Your task to perform on an android device: open the mobile data screen to see how much data has been used Image 0: 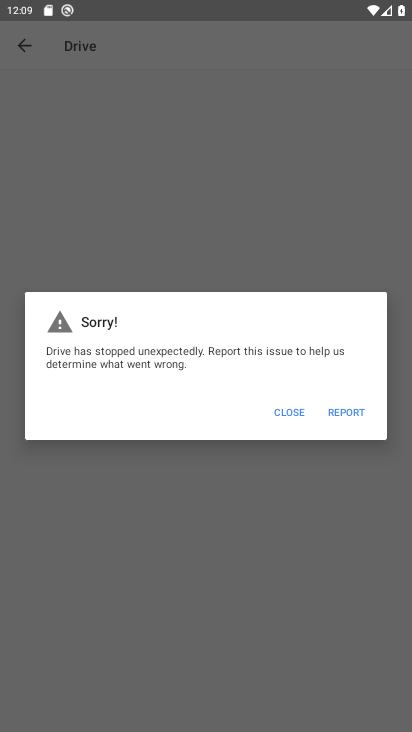
Step 0: press home button
Your task to perform on an android device: open the mobile data screen to see how much data has been used Image 1: 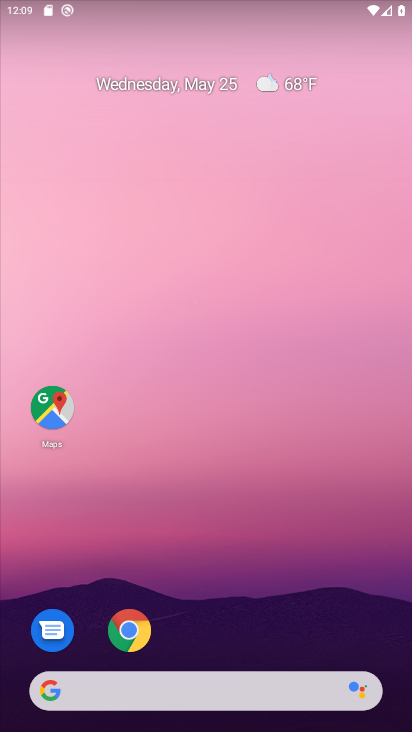
Step 1: drag from (202, 637) to (208, 164)
Your task to perform on an android device: open the mobile data screen to see how much data has been used Image 2: 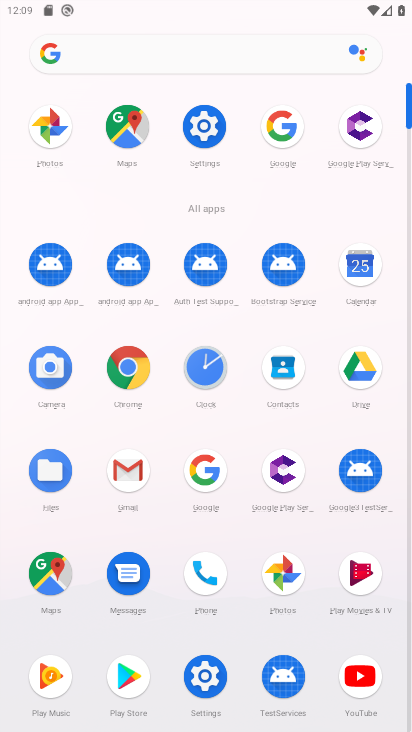
Step 2: click (194, 129)
Your task to perform on an android device: open the mobile data screen to see how much data has been used Image 3: 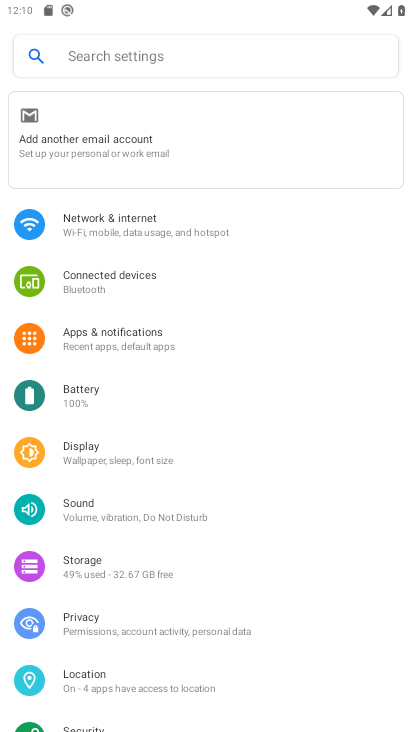
Step 3: click (189, 161)
Your task to perform on an android device: open the mobile data screen to see how much data has been used Image 4: 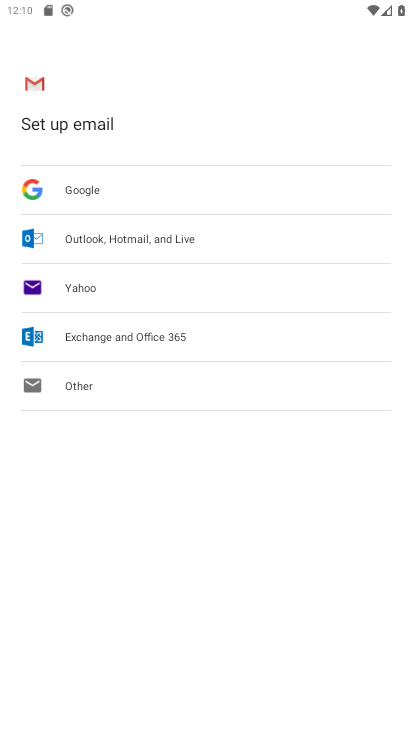
Step 4: press home button
Your task to perform on an android device: open the mobile data screen to see how much data has been used Image 5: 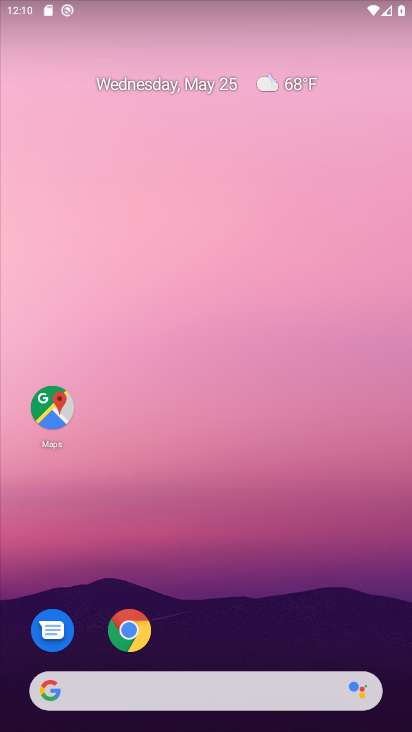
Step 5: drag from (220, 540) to (237, 160)
Your task to perform on an android device: open the mobile data screen to see how much data has been used Image 6: 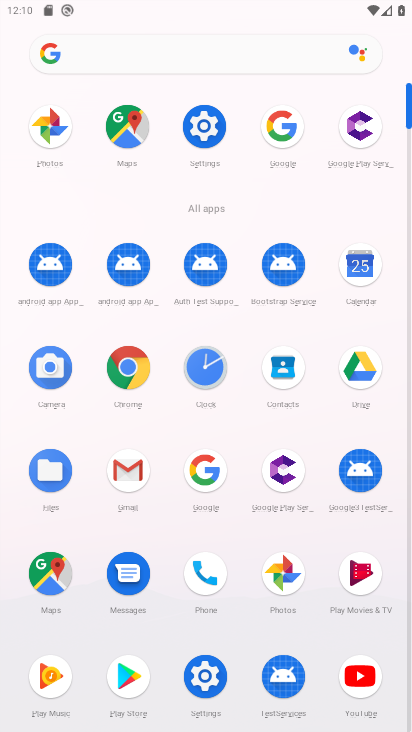
Step 6: click (226, 131)
Your task to perform on an android device: open the mobile data screen to see how much data has been used Image 7: 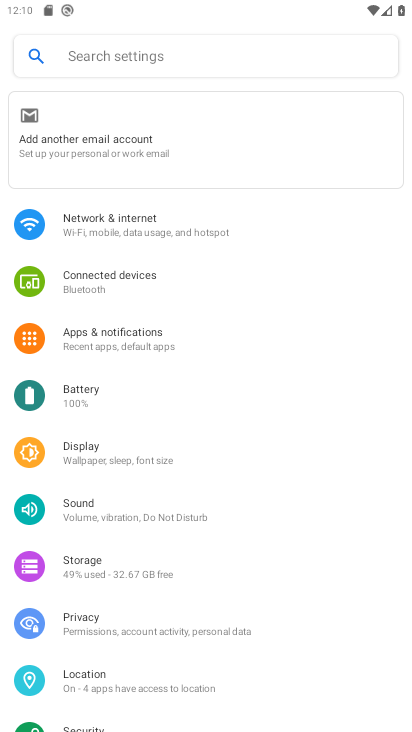
Step 7: click (128, 229)
Your task to perform on an android device: open the mobile data screen to see how much data has been used Image 8: 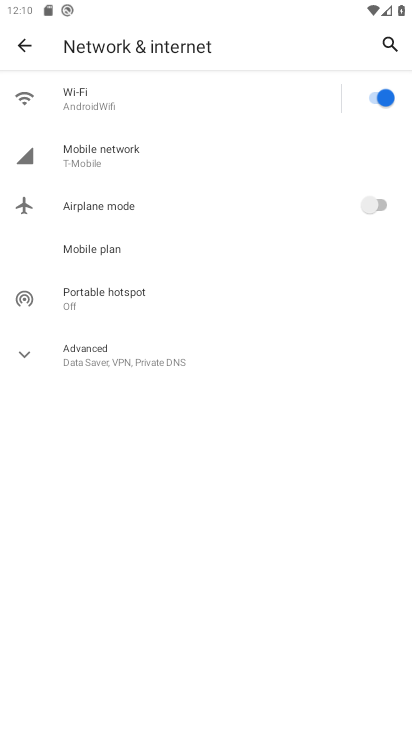
Step 8: click (120, 157)
Your task to perform on an android device: open the mobile data screen to see how much data has been used Image 9: 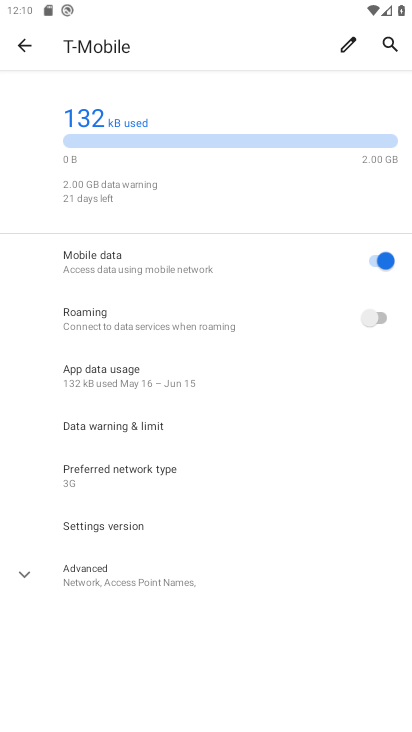
Step 9: drag from (197, 520) to (231, 237)
Your task to perform on an android device: open the mobile data screen to see how much data has been used Image 10: 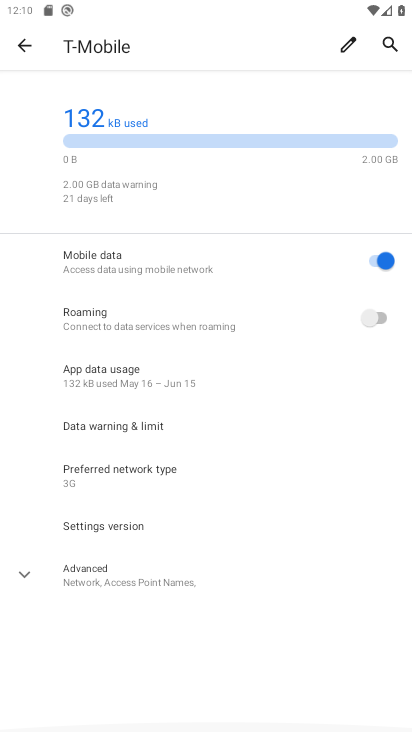
Step 10: click (175, 378)
Your task to perform on an android device: open the mobile data screen to see how much data has been used Image 11: 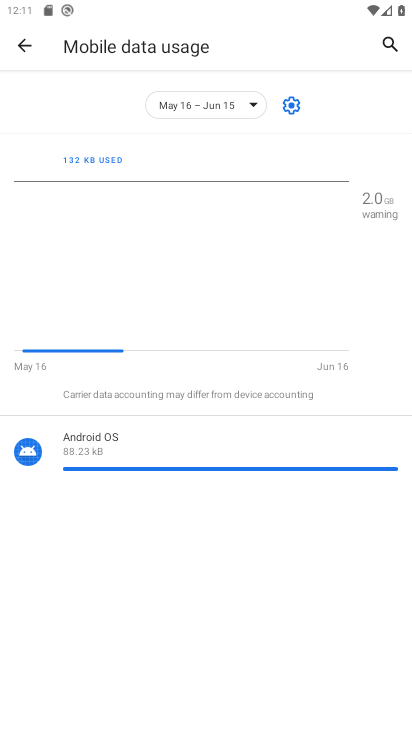
Step 11: task complete